Your task to perform on an android device: turn on wifi Image 0: 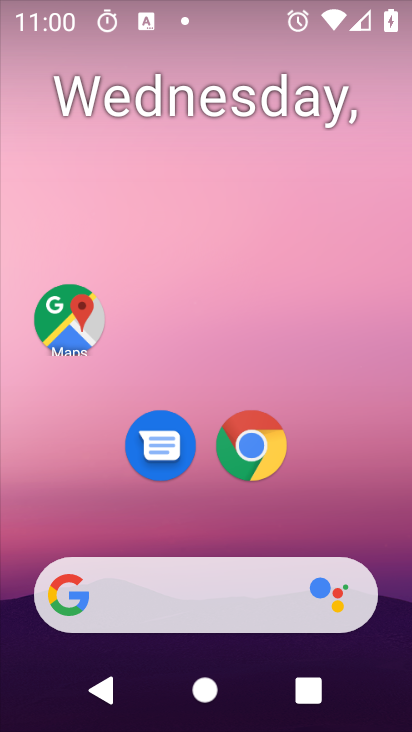
Step 0: drag from (377, 537) to (353, 96)
Your task to perform on an android device: turn on wifi Image 1: 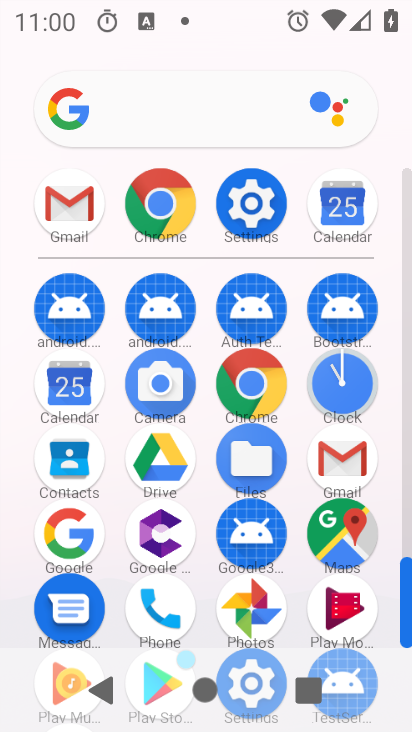
Step 1: click (256, 205)
Your task to perform on an android device: turn on wifi Image 2: 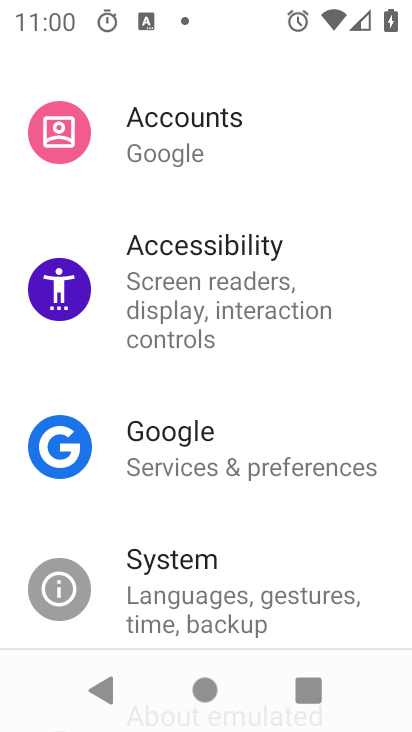
Step 2: drag from (256, 205) to (332, 638)
Your task to perform on an android device: turn on wifi Image 3: 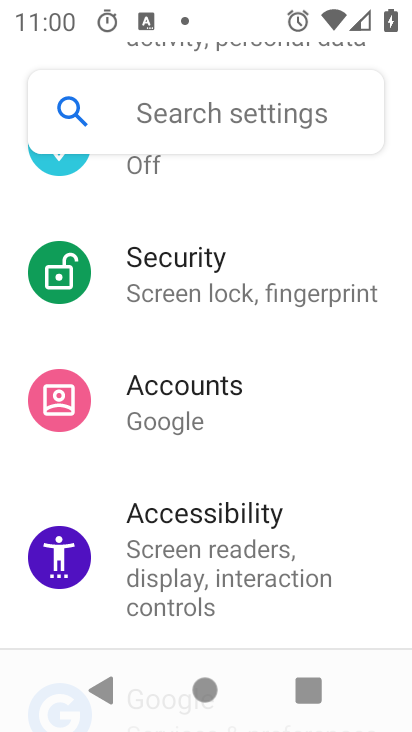
Step 3: drag from (270, 219) to (330, 688)
Your task to perform on an android device: turn on wifi Image 4: 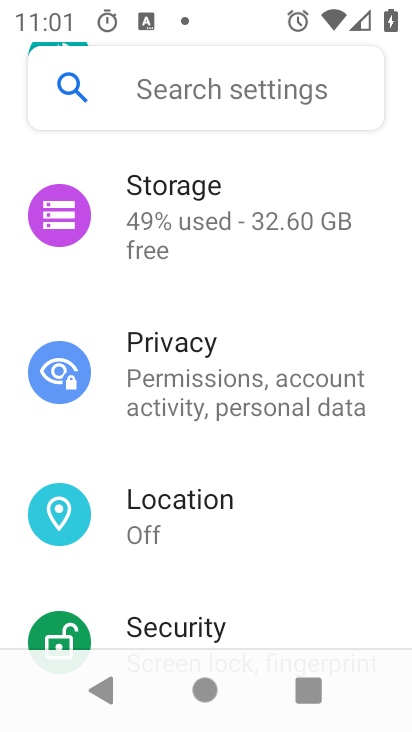
Step 4: drag from (297, 260) to (356, 695)
Your task to perform on an android device: turn on wifi Image 5: 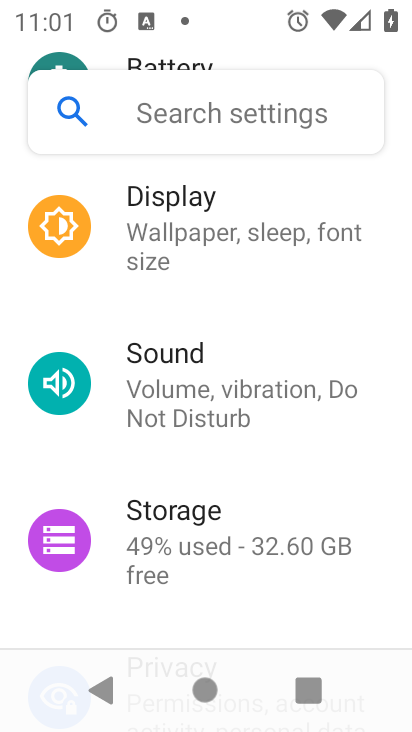
Step 5: drag from (319, 214) to (332, 645)
Your task to perform on an android device: turn on wifi Image 6: 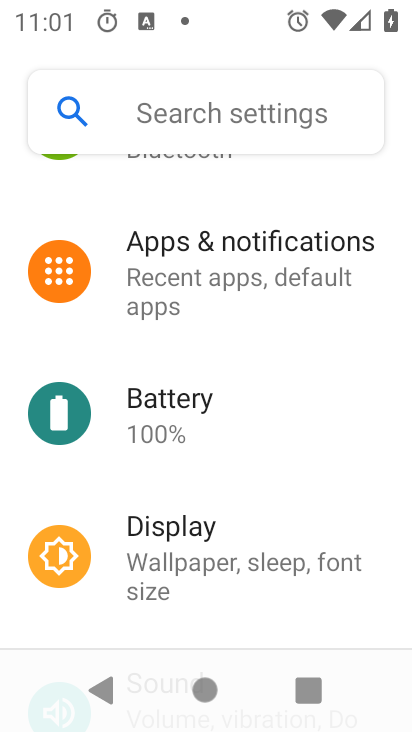
Step 6: drag from (168, 223) to (257, 648)
Your task to perform on an android device: turn on wifi Image 7: 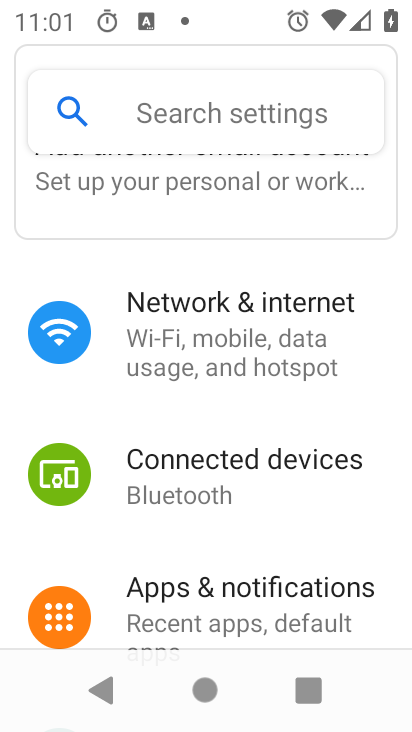
Step 7: drag from (251, 226) to (323, 664)
Your task to perform on an android device: turn on wifi Image 8: 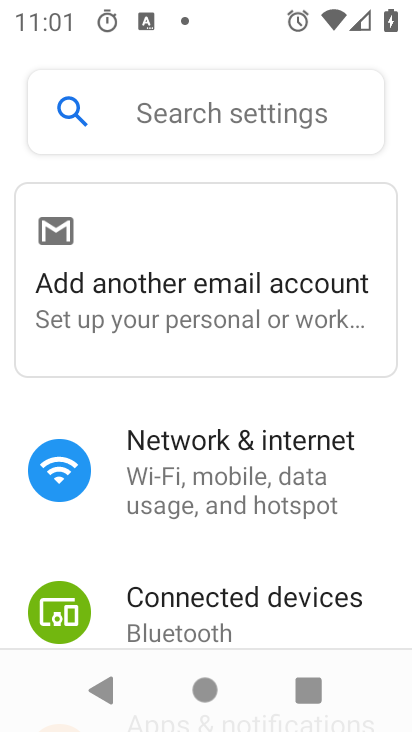
Step 8: click (254, 472)
Your task to perform on an android device: turn on wifi Image 9: 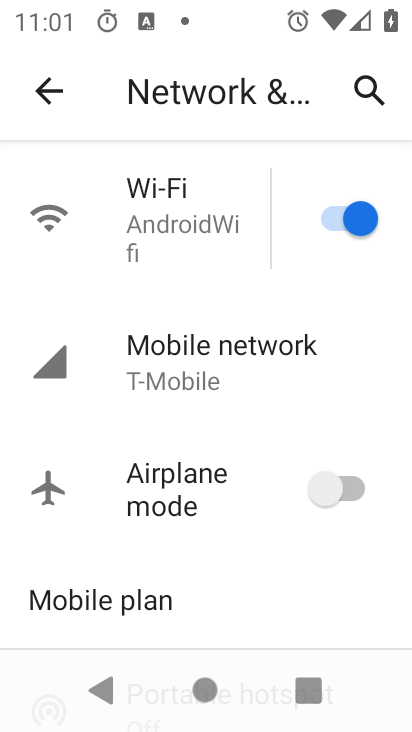
Step 9: task complete